Your task to perform on an android device: Open Google Maps Image 0: 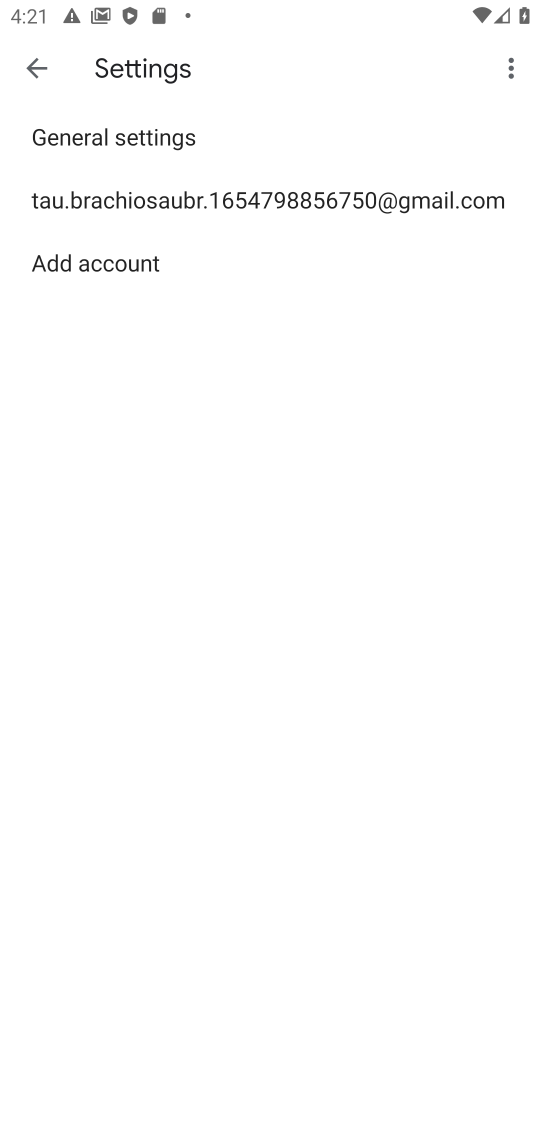
Step 0: press home button
Your task to perform on an android device: Open Google Maps Image 1: 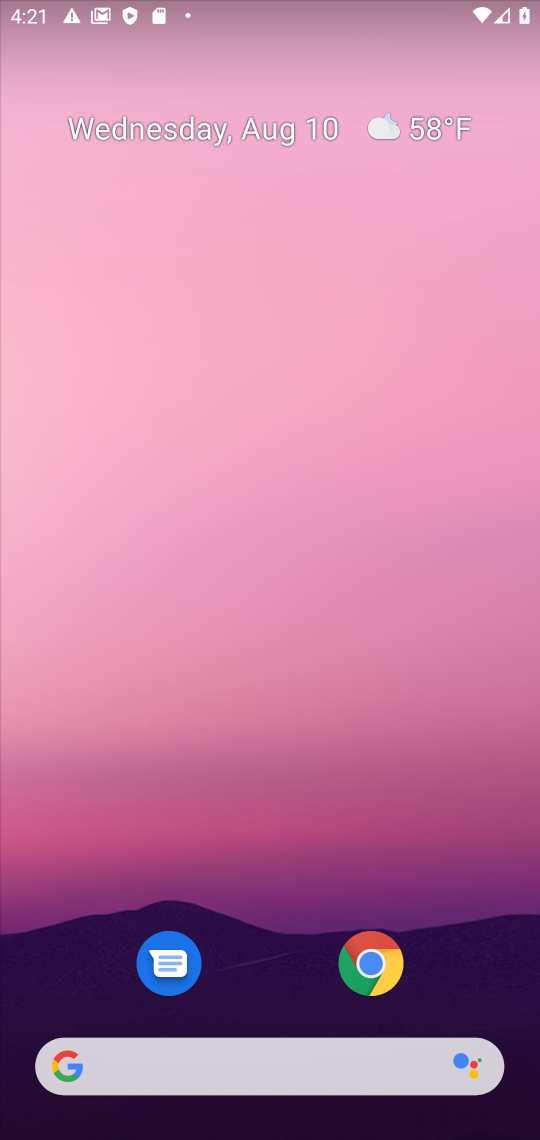
Step 1: drag from (317, 939) to (385, 64)
Your task to perform on an android device: Open Google Maps Image 2: 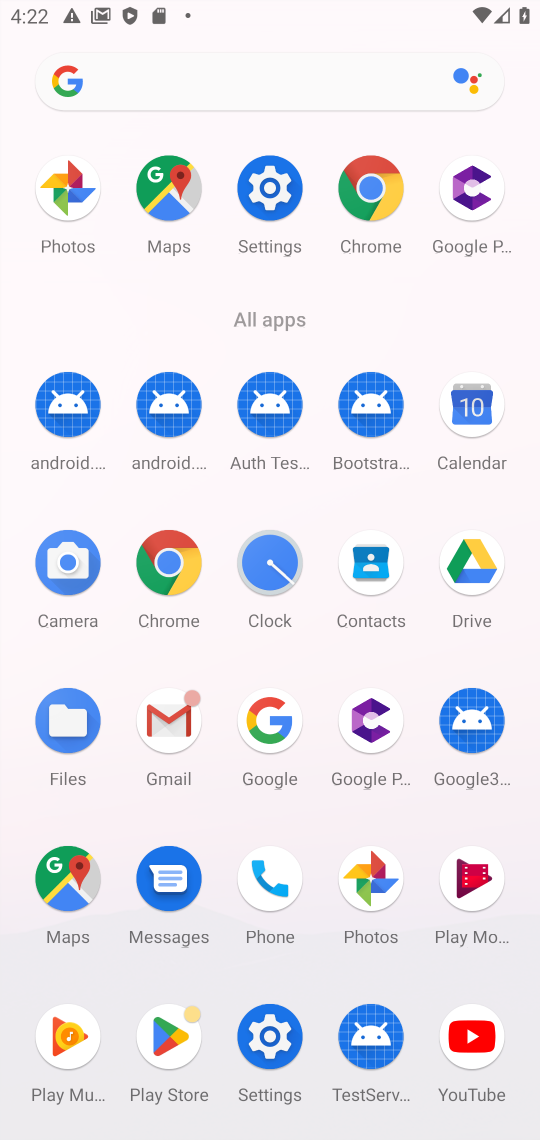
Step 2: click (37, 867)
Your task to perform on an android device: Open Google Maps Image 3: 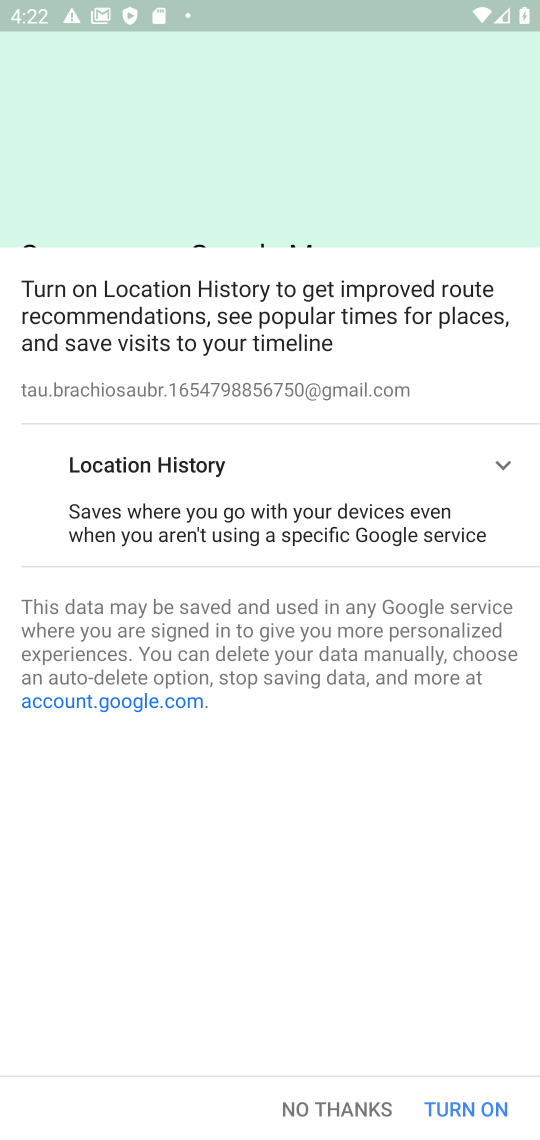
Step 3: task complete